Your task to perform on an android device: Find coffee shops on Maps Image 0: 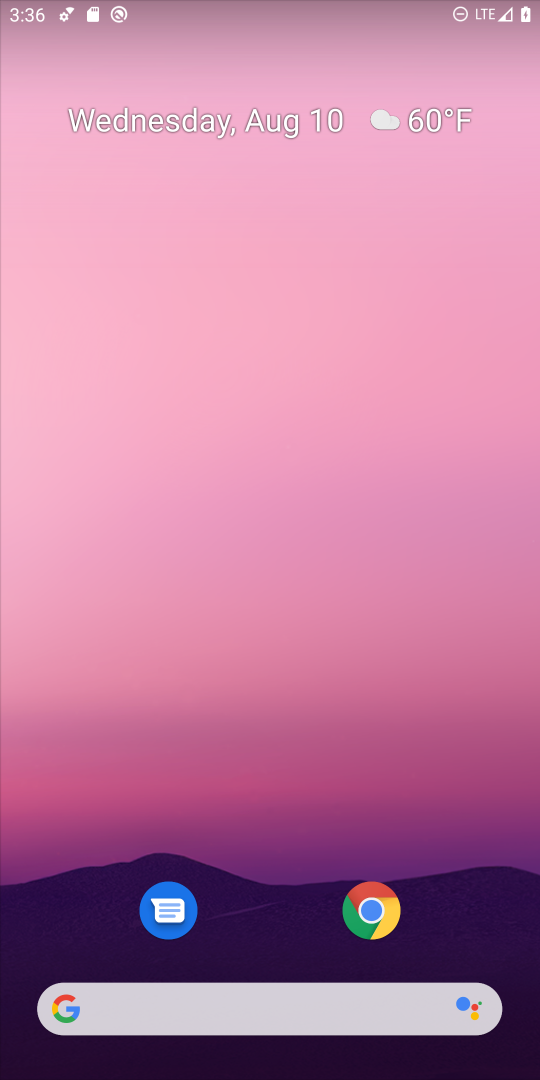
Step 0: drag from (249, 933) to (315, 14)
Your task to perform on an android device: Find coffee shops on Maps Image 1: 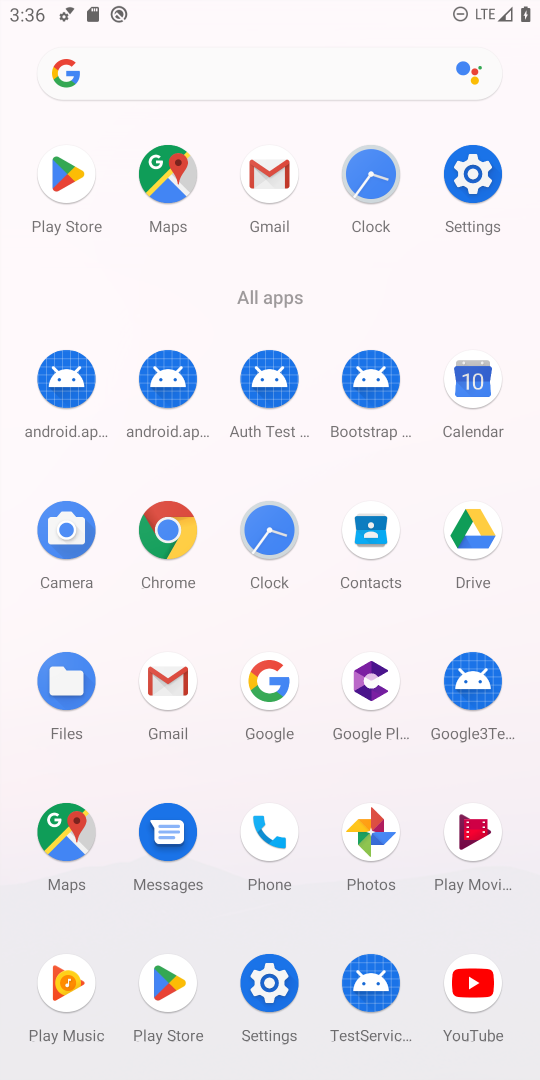
Step 1: click (55, 853)
Your task to perform on an android device: Find coffee shops on Maps Image 2: 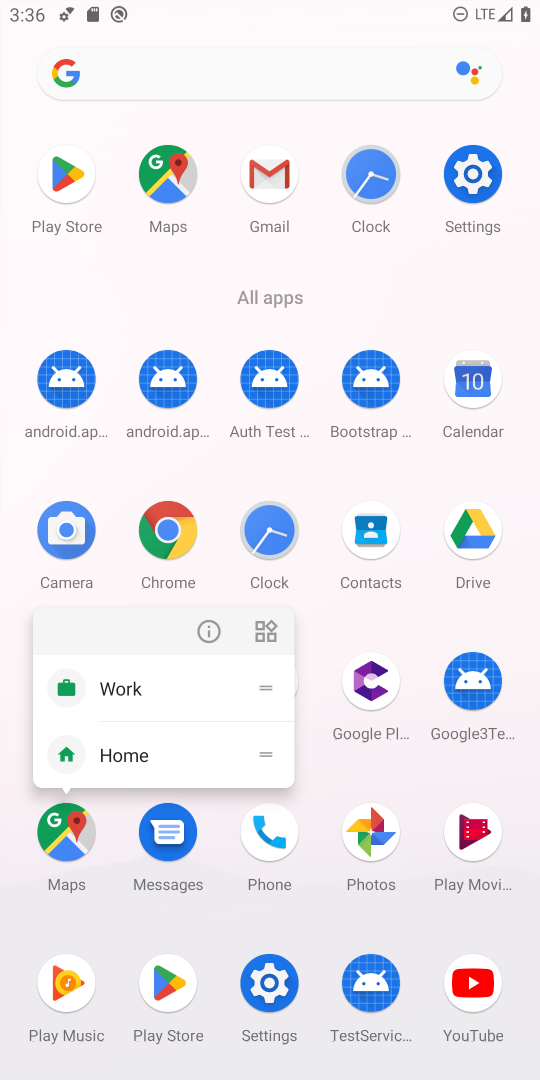
Step 2: click (58, 853)
Your task to perform on an android device: Find coffee shops on Maps Image 3: 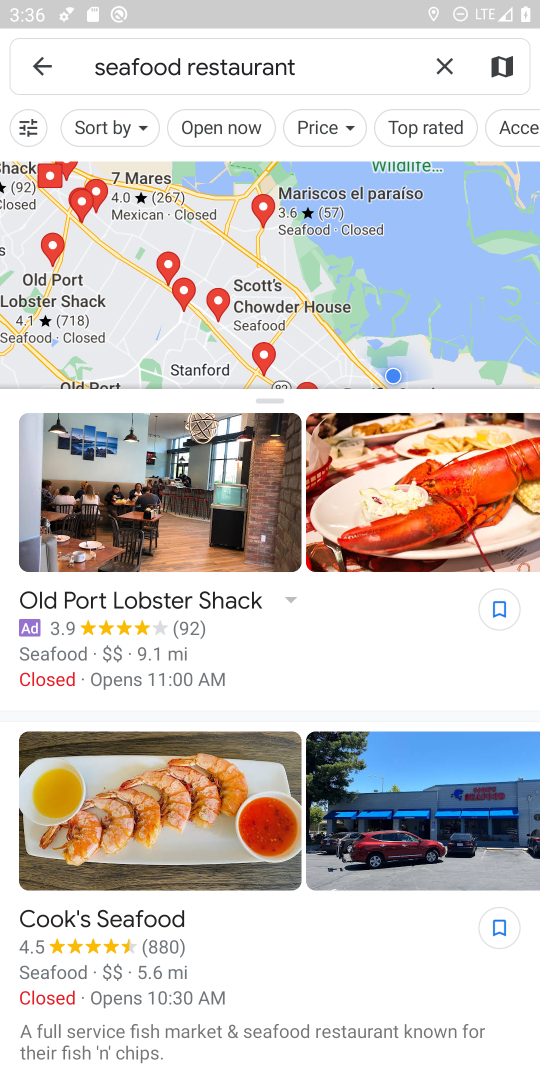
Step 3: click (439, 66)
Your task to perform on an android device: Find coffee shops on Maps Image 4: 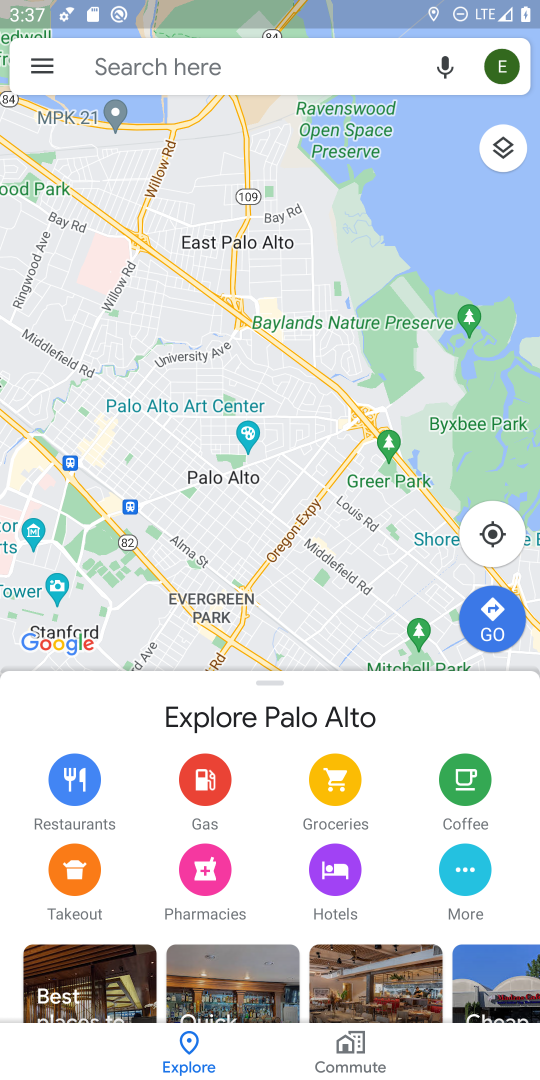
Step 4: type "coffee shops"
Your task to perform on an android device: Find coffee shops on Maps Image 5: 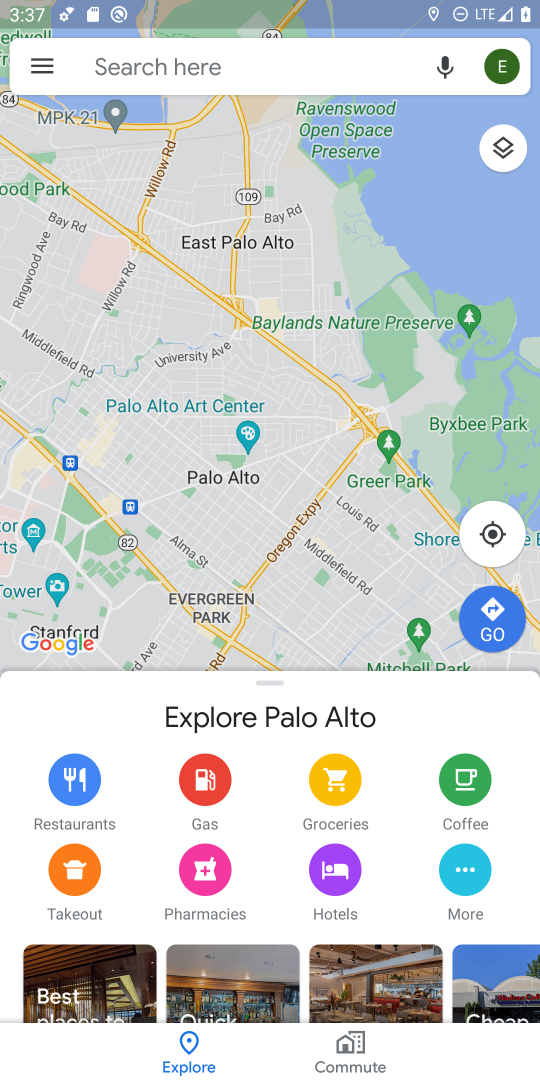
Step 5: task complete